Your task to perform on an android device: Go to Reddit.com Image 0: 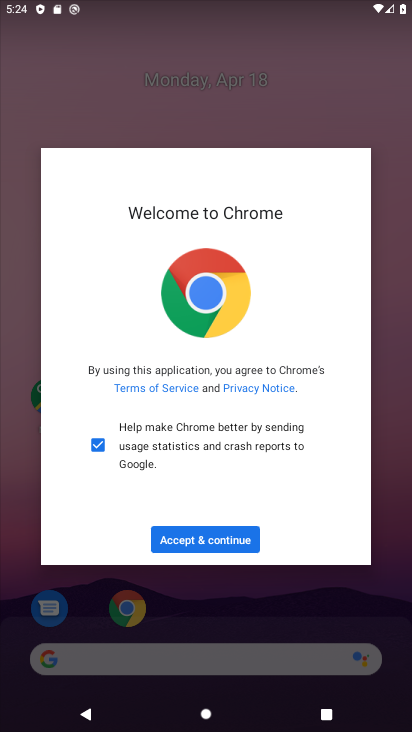
Step 0: click (217, 537)
Your task to perform on an android device: Go to Reddit.com Image 1: 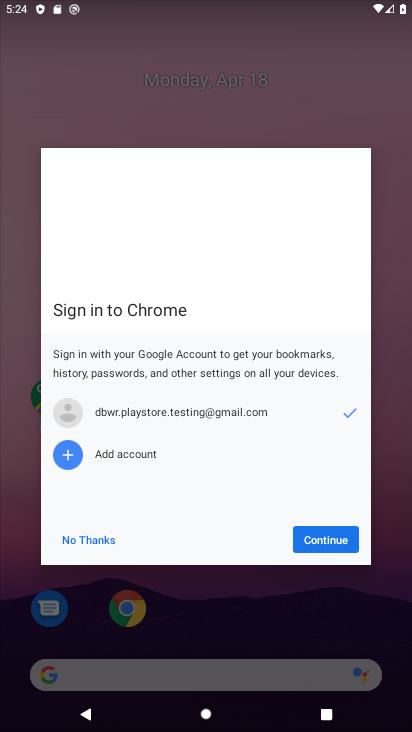
Step 1: click (332, 546)
Your task to perform on an android device: Go to Reddit.com Image 2: 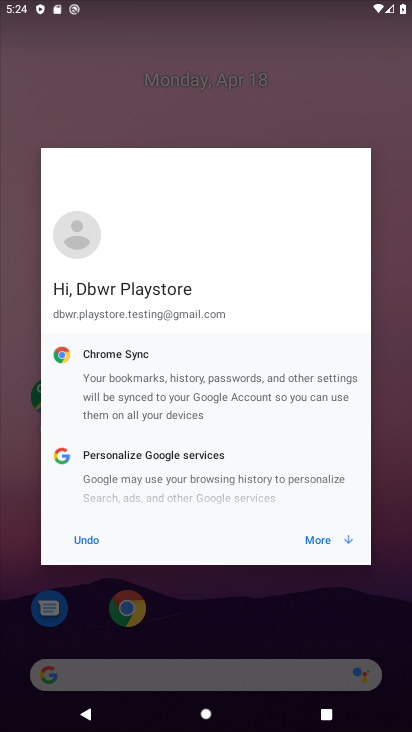
Step 2: click (327, 541)
Your task to perform on an android device: Go to Reddit.com Image 3: 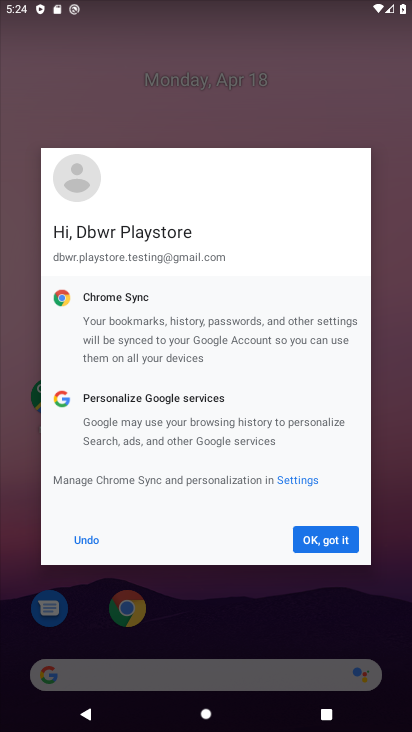
Step 3: click (327, 541)
Your task to perform on an android device: Go to Reddit.com Image 4: 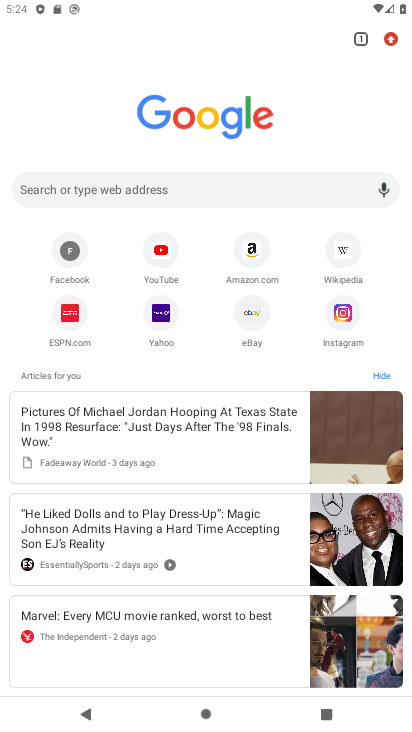
Step 4: click (257, 193)
Your task to perform on an android device: Go to Reddit.com Image 5: 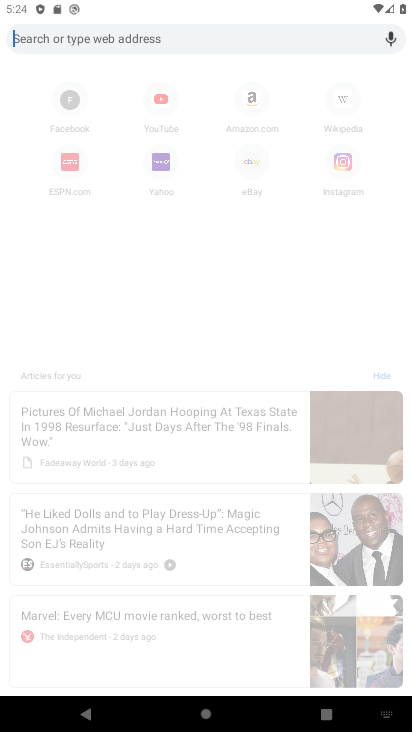
Step 5: type "reddit.com"
Your task to perform on an android device: Go to Reddit.com Image 6: 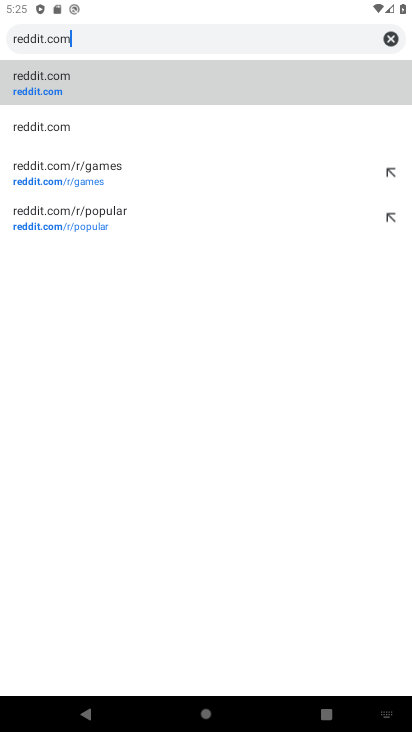
Step 6: click (43, 88)
Your task to perform on an android device: Go to Reddit.com Image 7: 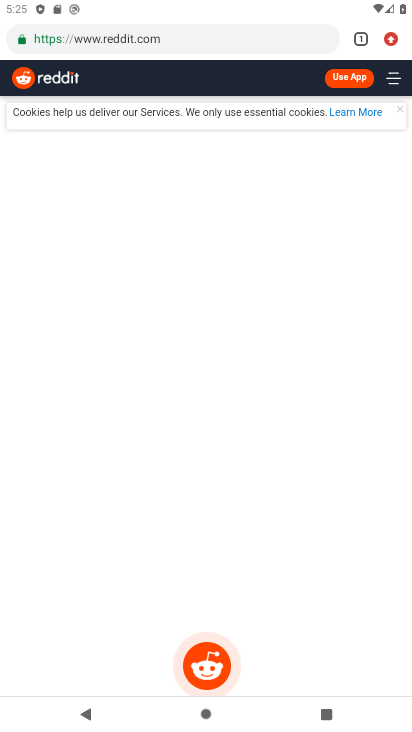
Step 7: task complete